Your task to perform on an android device: Open CNN.com Image 0: 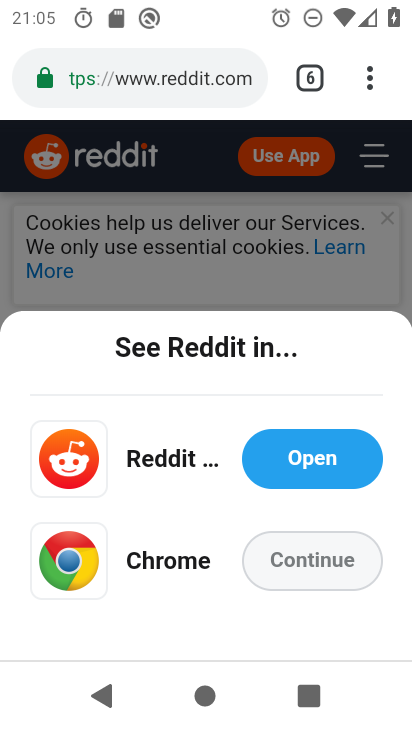
Step 0: click (313, 69)
Your task to perform on an android device: Open CNN.com Image 1: 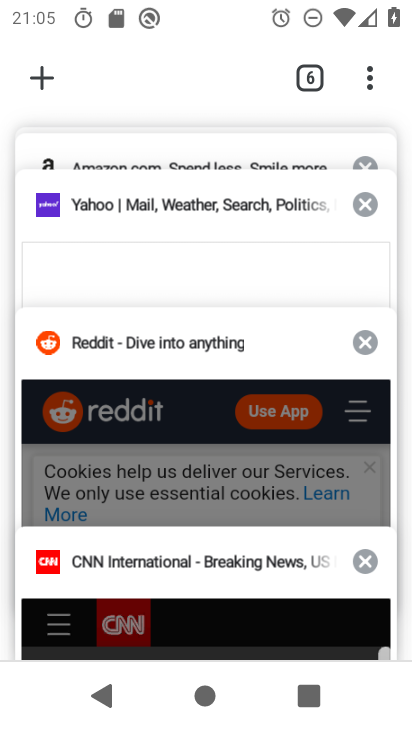
Step 1: drag from (219, 191) to (190, 84)
Your task to perform on an android device: Open CNN.com Image 2: 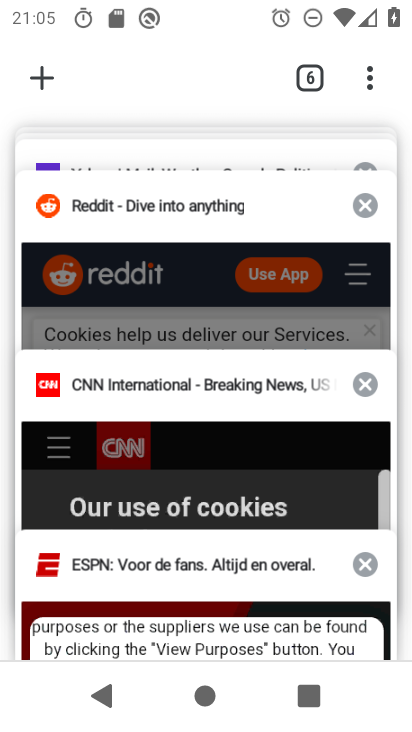
Step 2: click (164, 387)
Your task to perform on an android device: Open CNN.com Image 3: 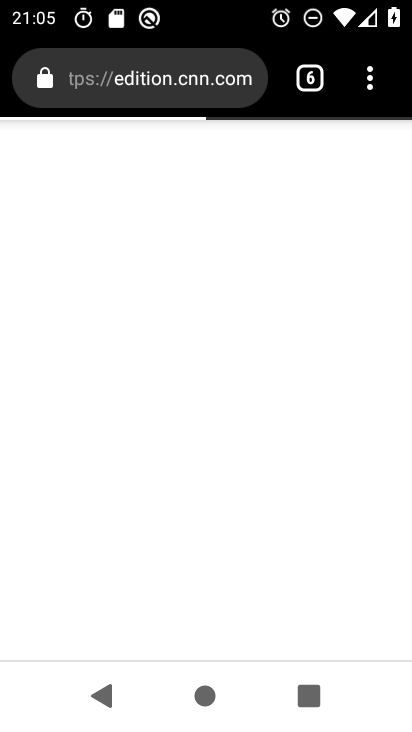
Step 3: task complete